Your task to perform on an android device: Show me the alarms in the clock app Image 0: 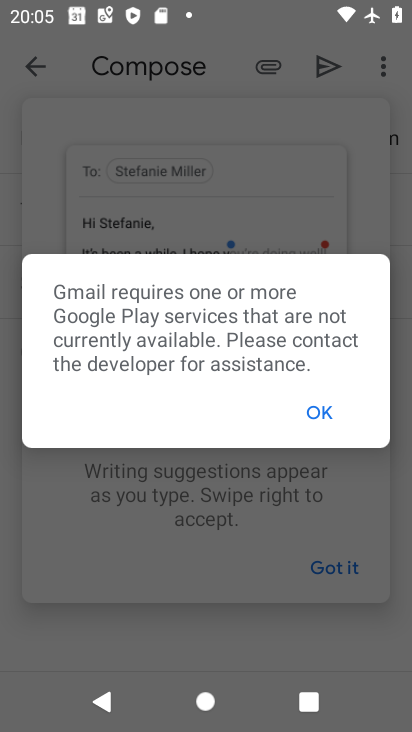
Step 0: press home button
Your task to perform on an android device: Show me the alarms in the clock app Image 1: 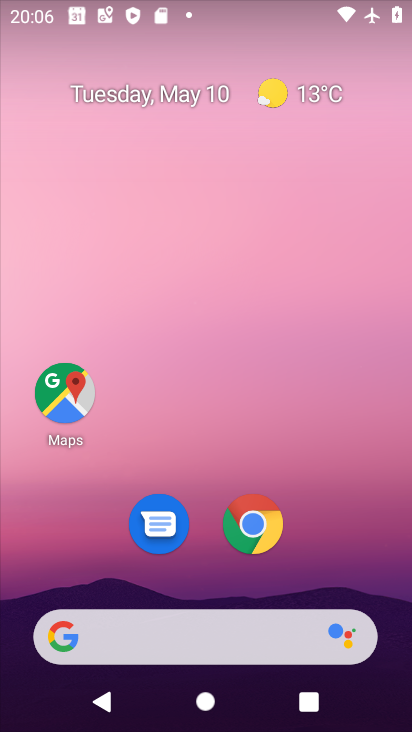
Step 1: drag from (335, 531) to (324, 17)
Your task to perform on an android device: Show me the alarms in the clock app Image 2: 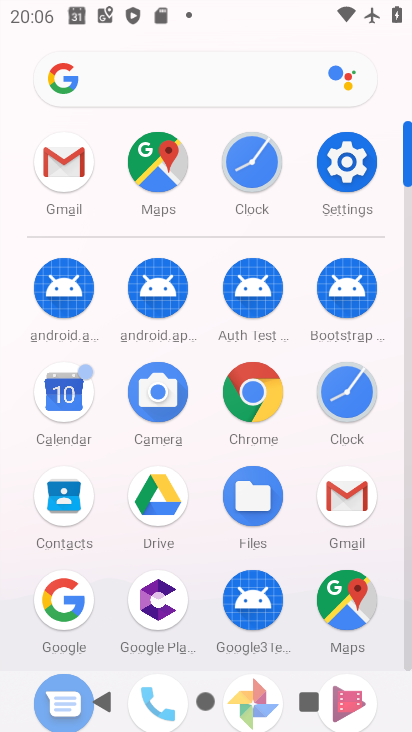
Step 2: click (257, 175)
Your task to perform on an android device: Show me the alarms in the clock app Image 3: 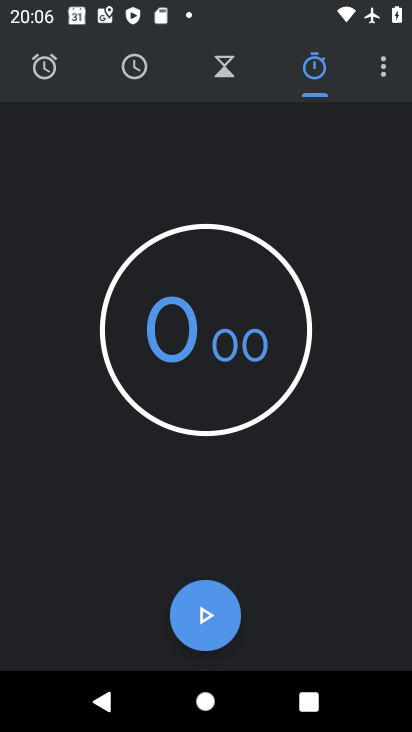
Step 3: click (50, 64)
Your task to perform on an android device: Show me the alarms in the clock app Image 4: 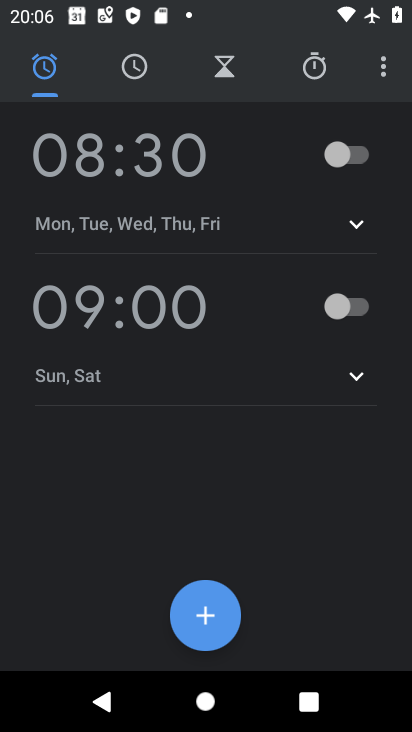
Step 4: task complete